Your task to perform on an android device: turn vacation reply on in the gmail app Image 0: 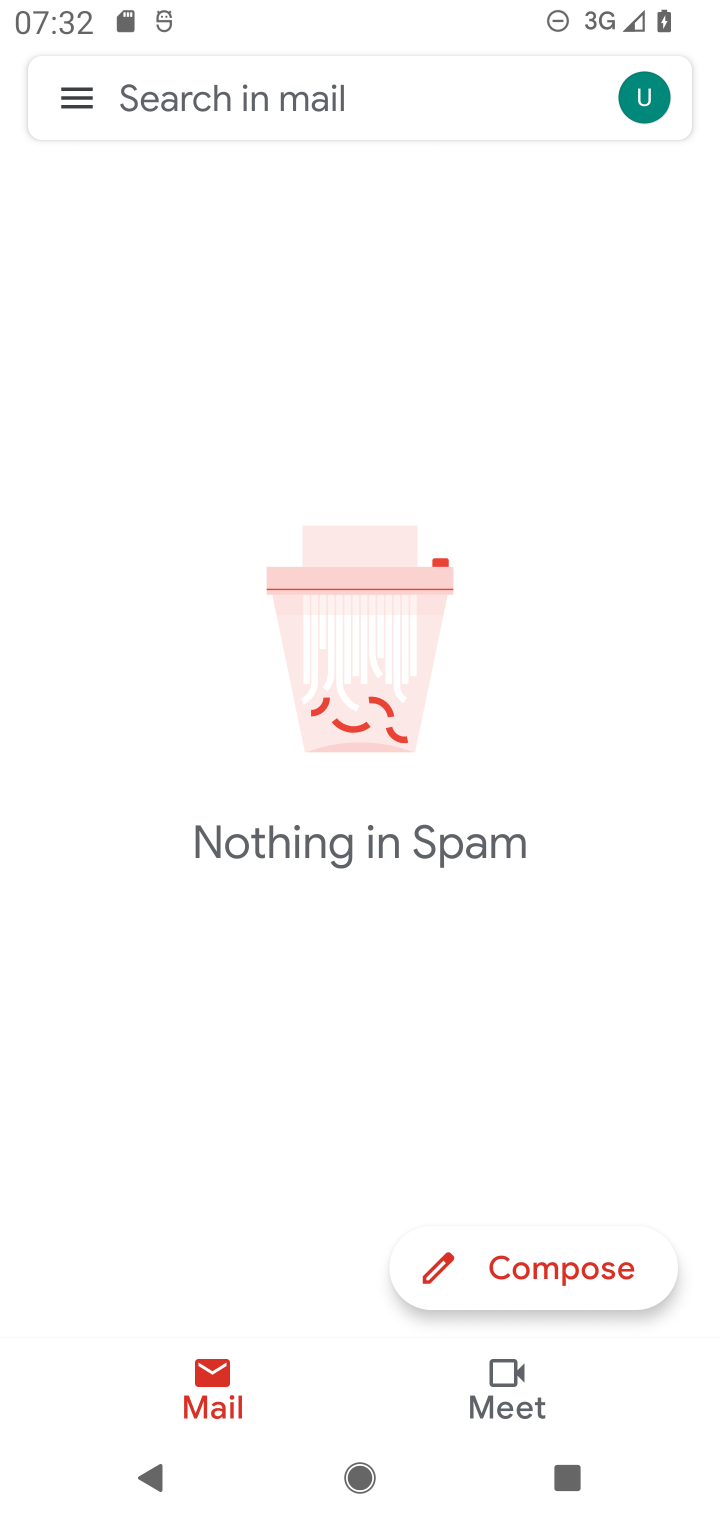
Step 0: press home button
Your task to perform on an android device: turn vacation reply on in the gmail app Image 1: 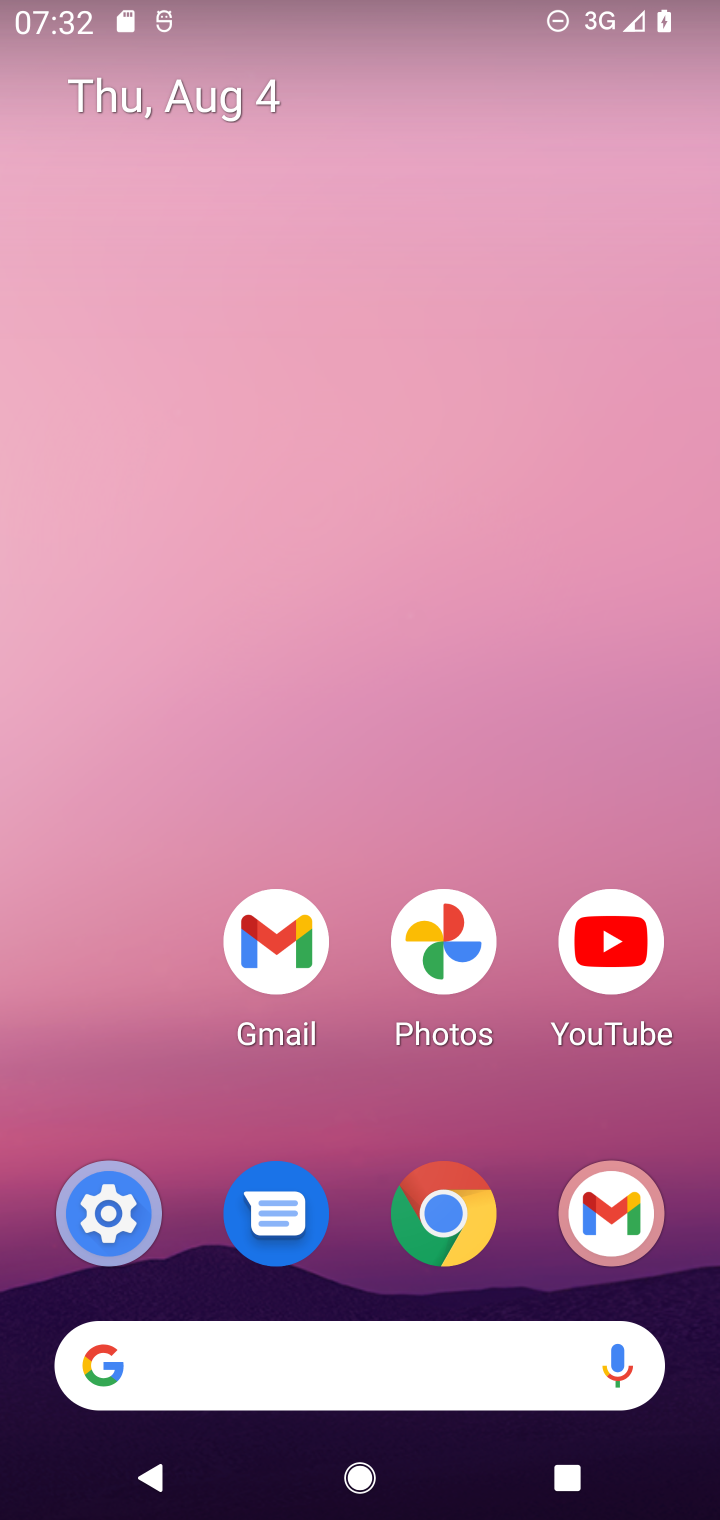
Step 1: drag from (117, 739) to (152, 401)
Your task to perform on an android device: turn vacation reply on in the gmail app Image 2: 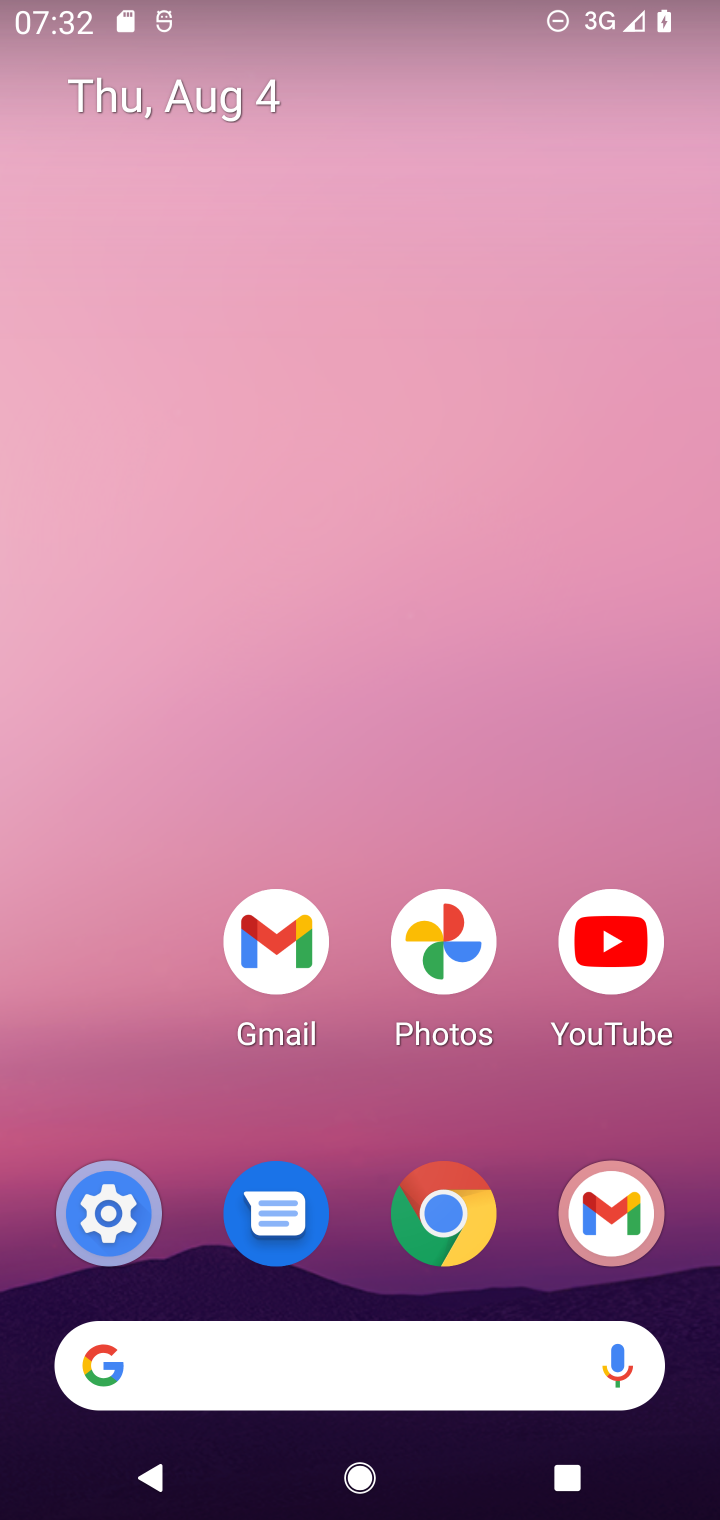
Step 2: drag from (174, 1109) to (201, 275)
Your task to perform on an android device: turn vacation reply on in the gmail app Image 3: 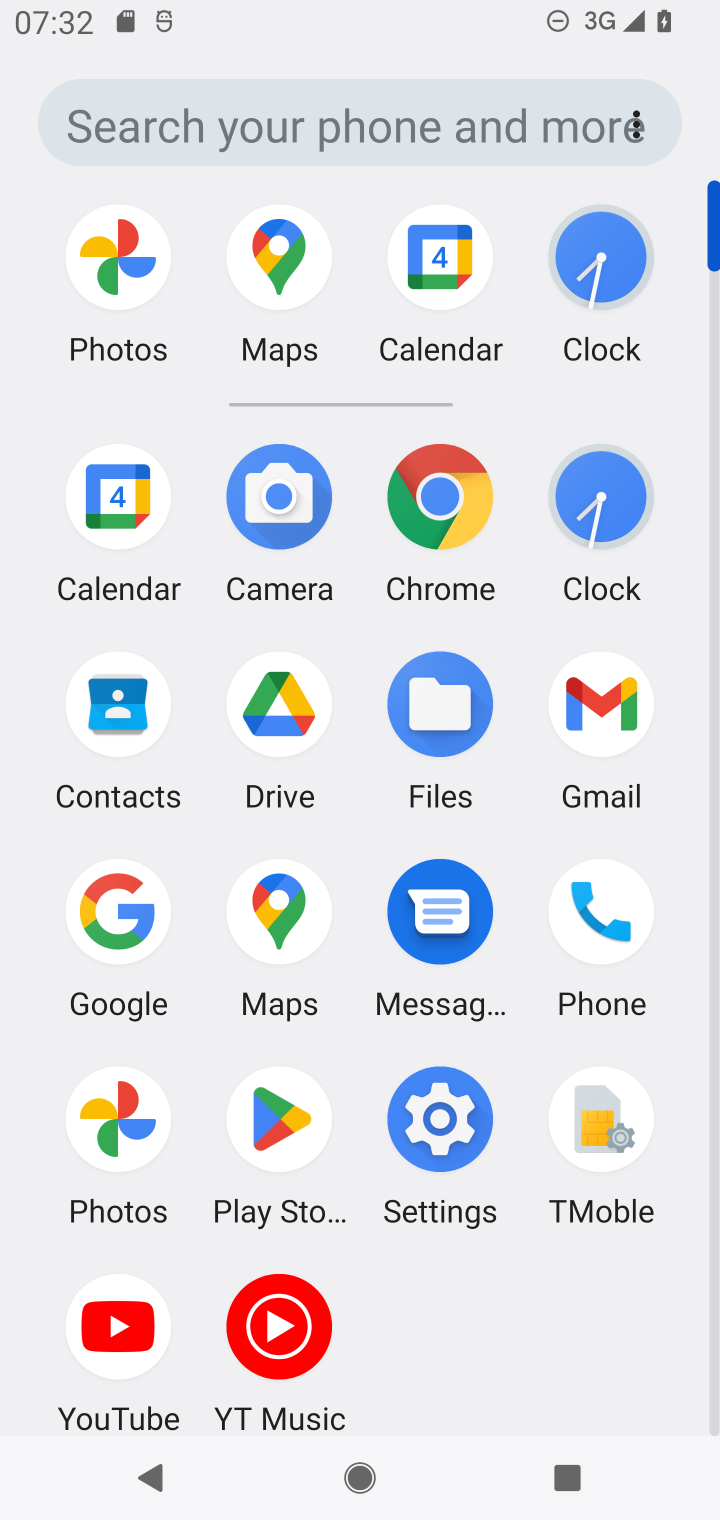
Step 3: click (609, 713)
Your task to perform on an android device: turn vacation reply on in the gmail app Image 4: 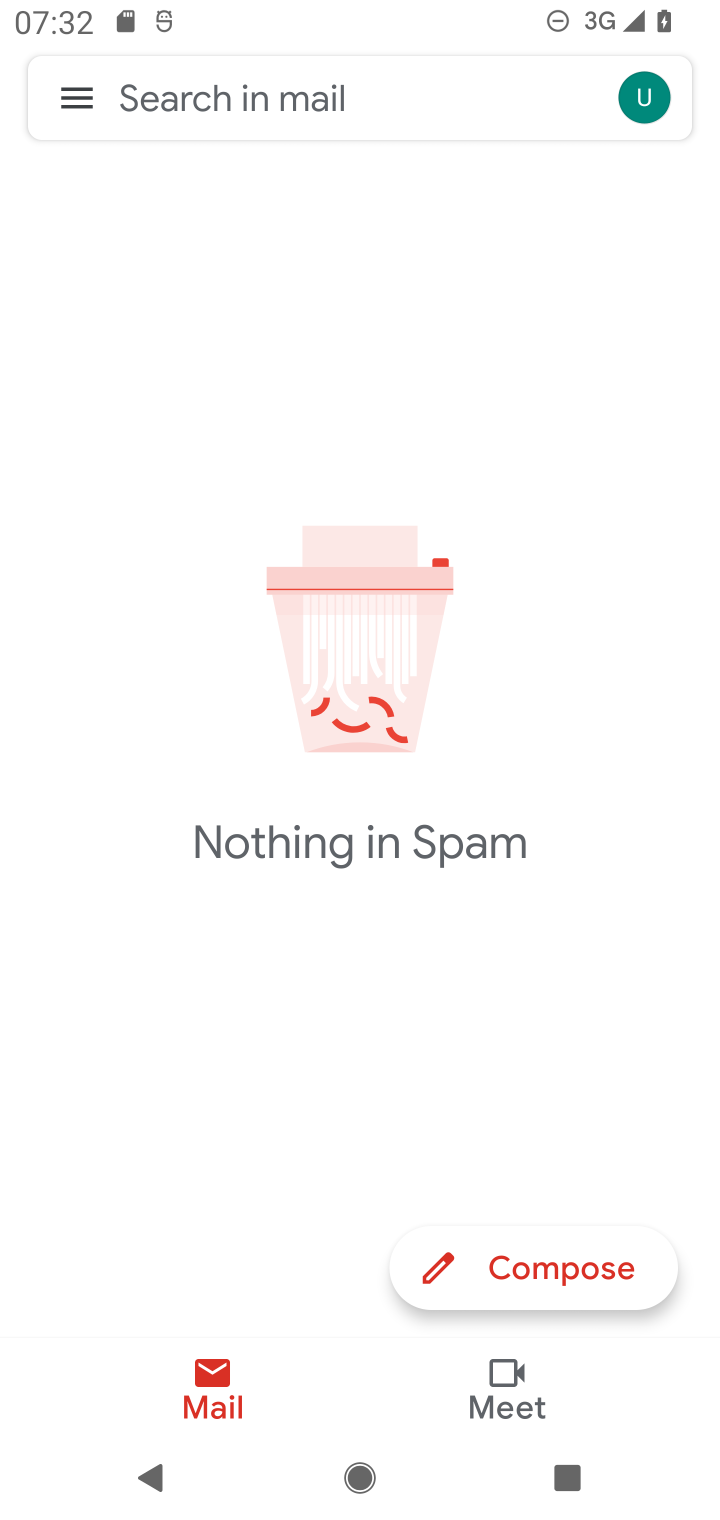
Step 4: click (79, 86)
Your task to perform on an android device: turn vacation reply on in the gmail app Image 5: 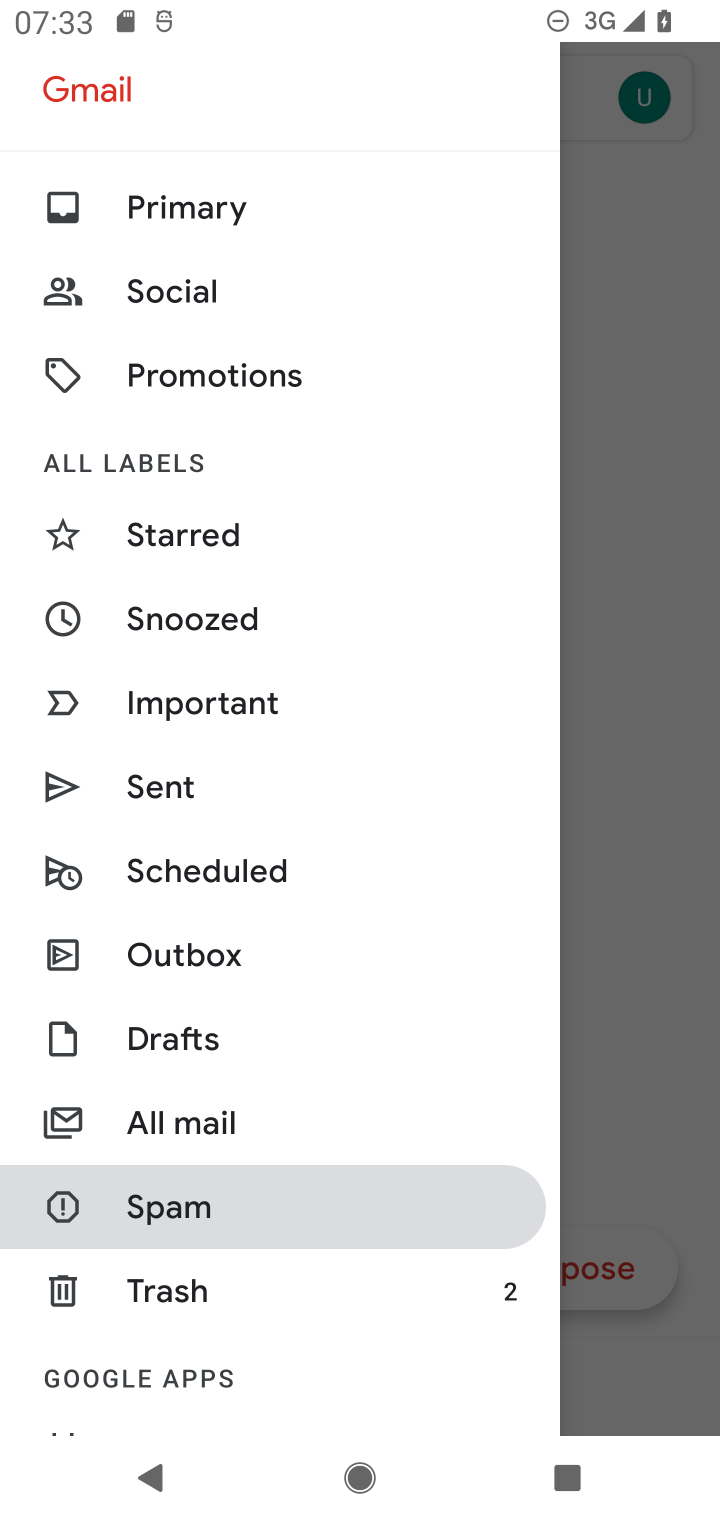
Step 5: drag from (323, 1114) to (336, 753)
Your task to perform on an android device: turn vacation reply on in the gmail app Image 6: 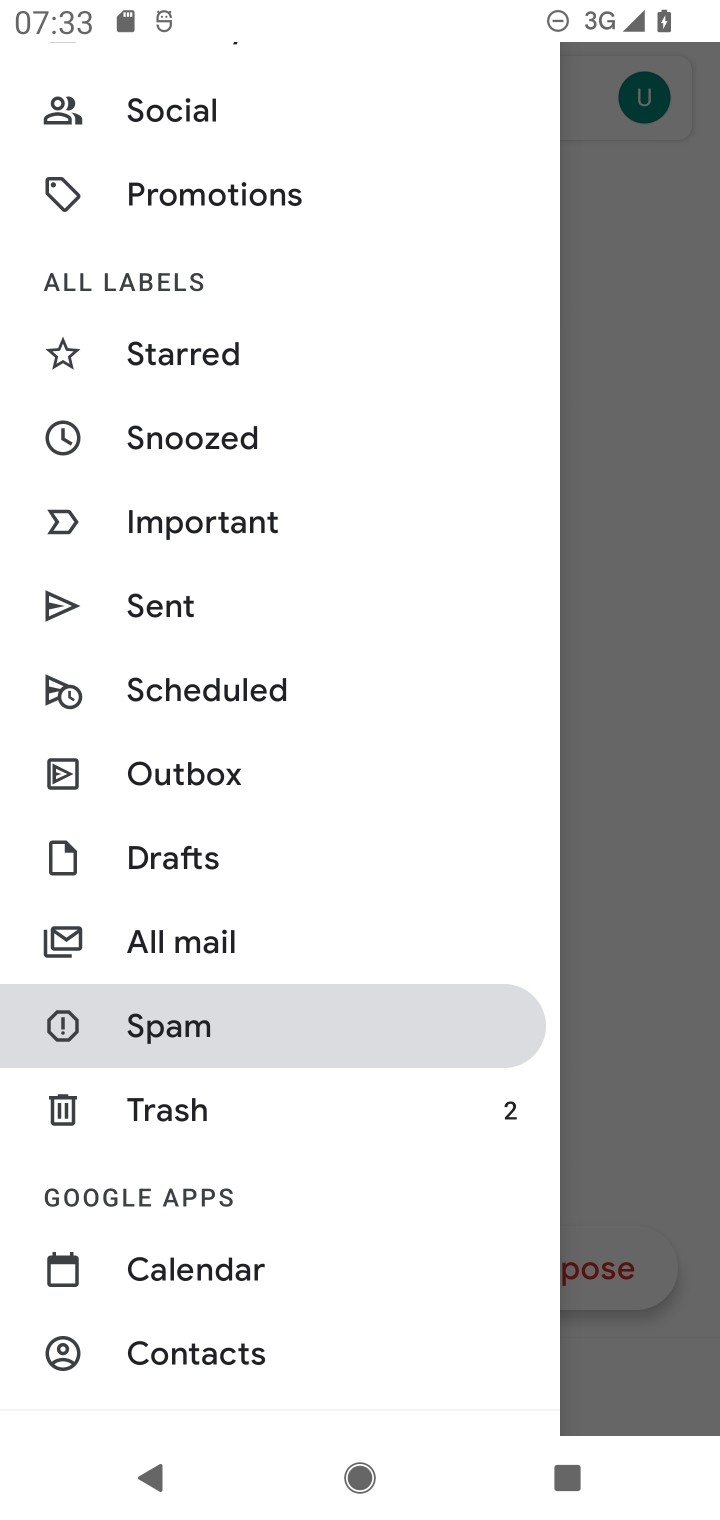
Step 6: drag from (361, 1273) to (379, 855)
Your task to perform on an android device: turn vacation reply on in the gmail app Image 7: 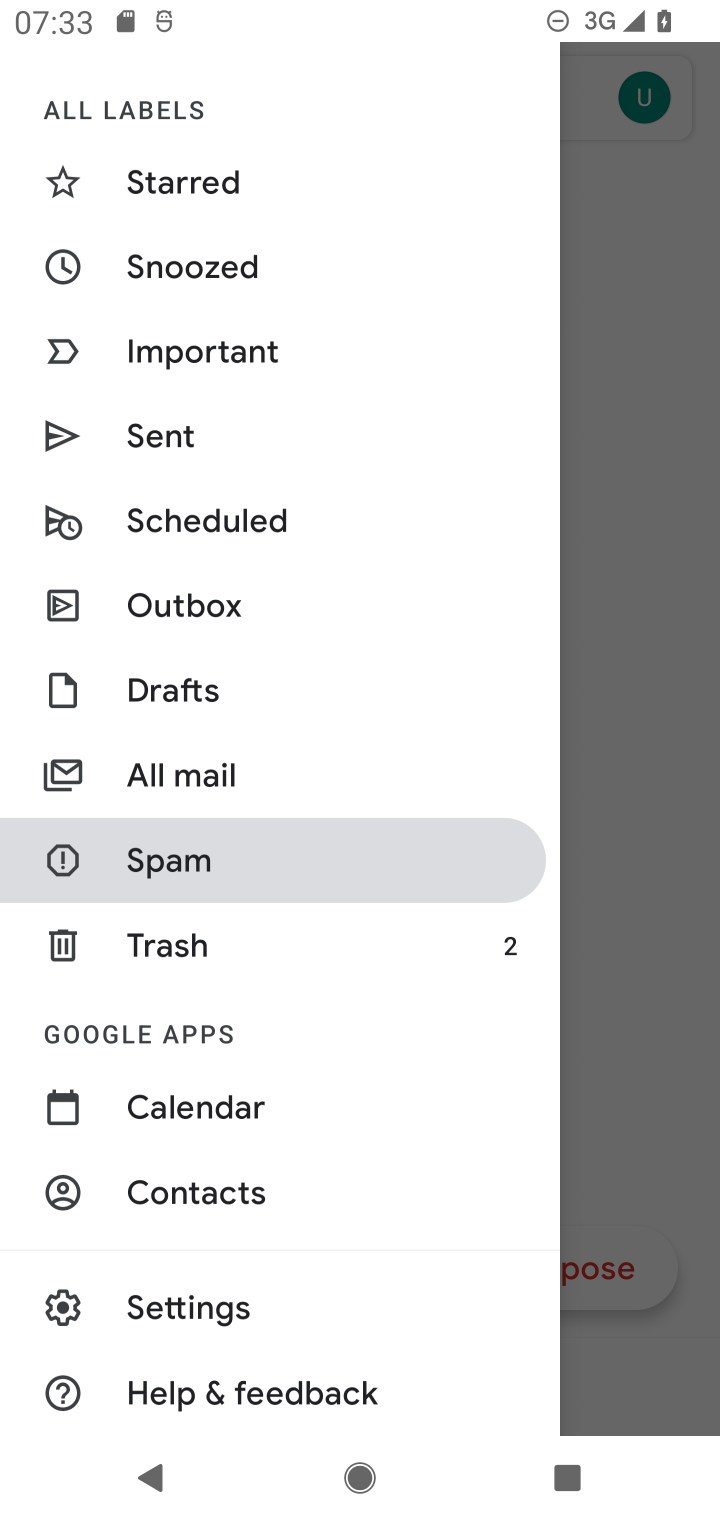
Step 7: click (239, 1296)
Your task to perform on an android device: turn vacation reply on in the gmail app Image 8: 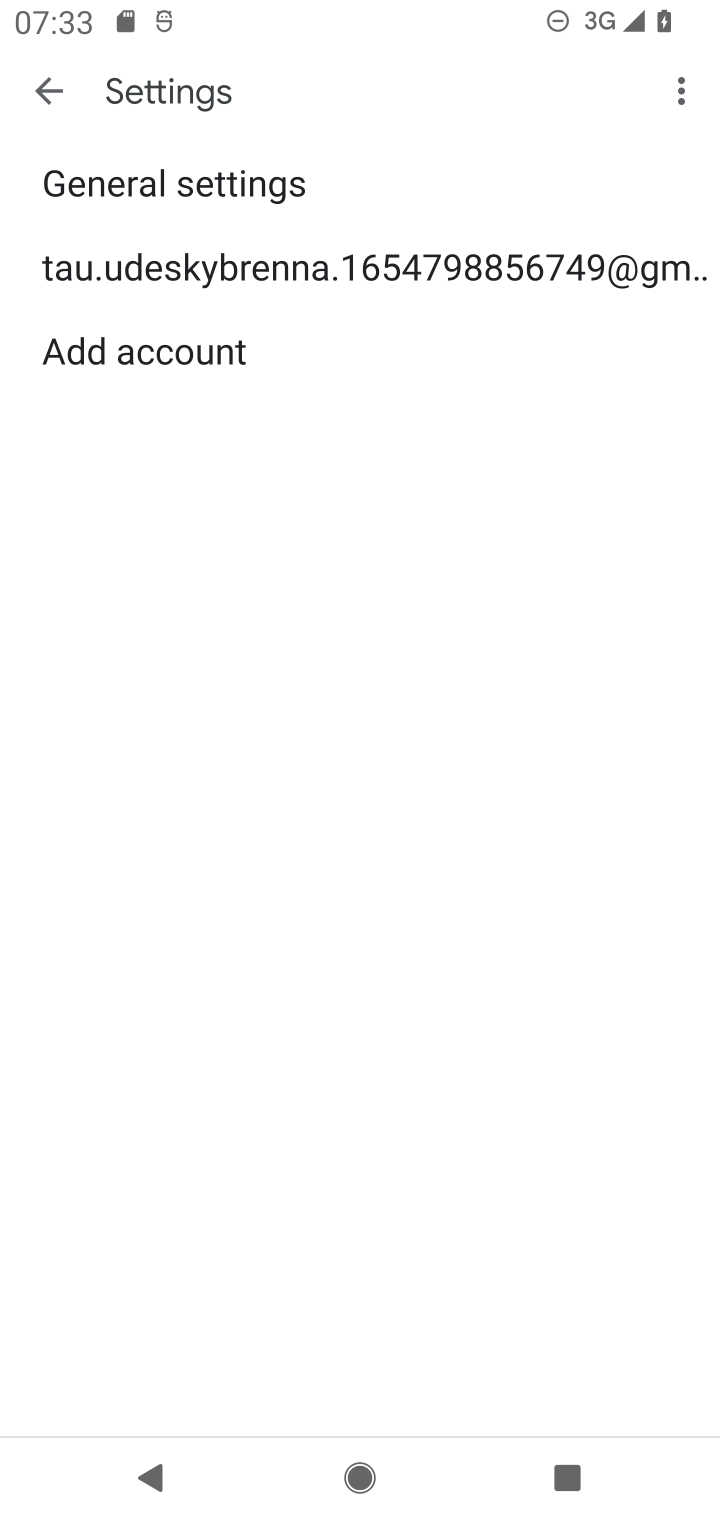
Step 8: click (536, 272)
Your task to perform on an android device: turn vacation reply on in the gmail app Image 9: 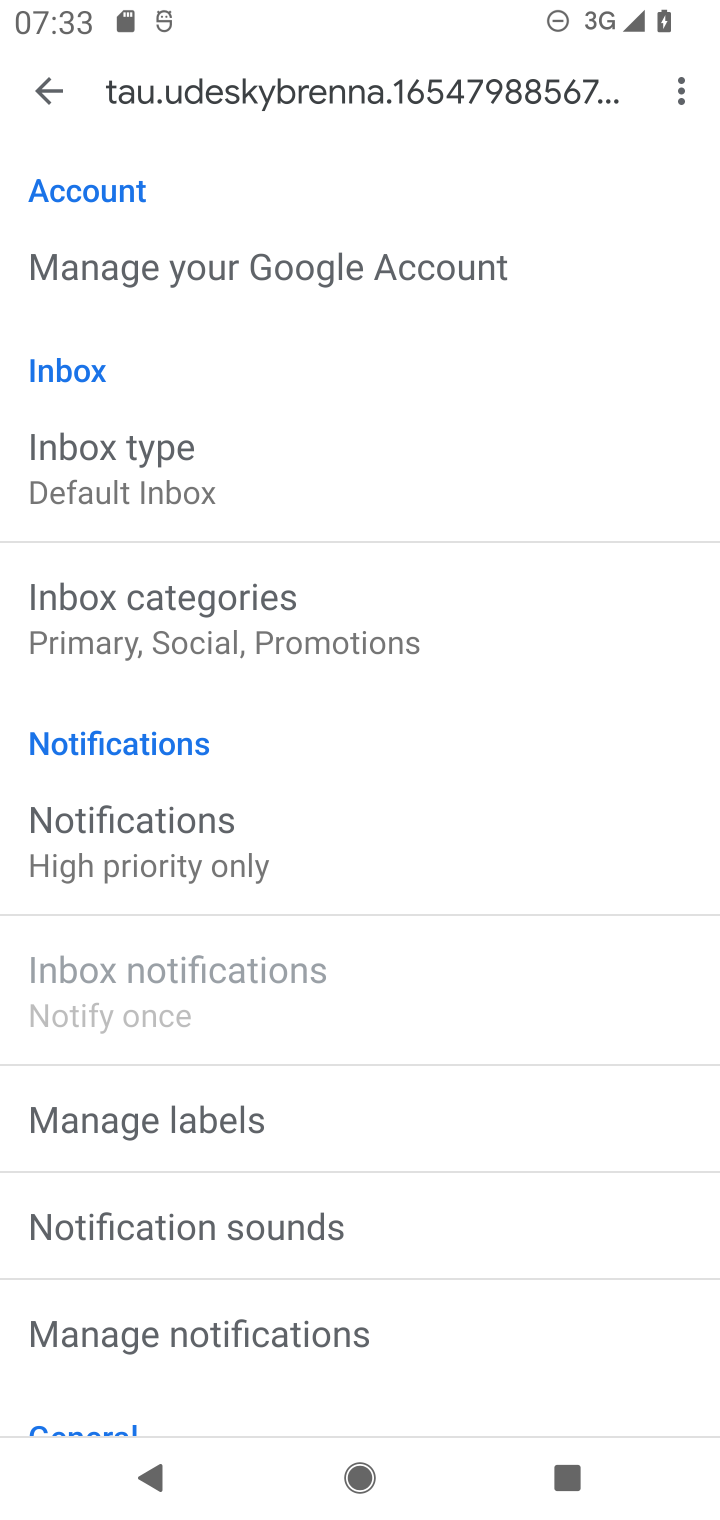
Step 9: drag from (506, 930) to (508, 626)
Your task to perform on an android device: turn vacation reply on in the gmail app Image 10: 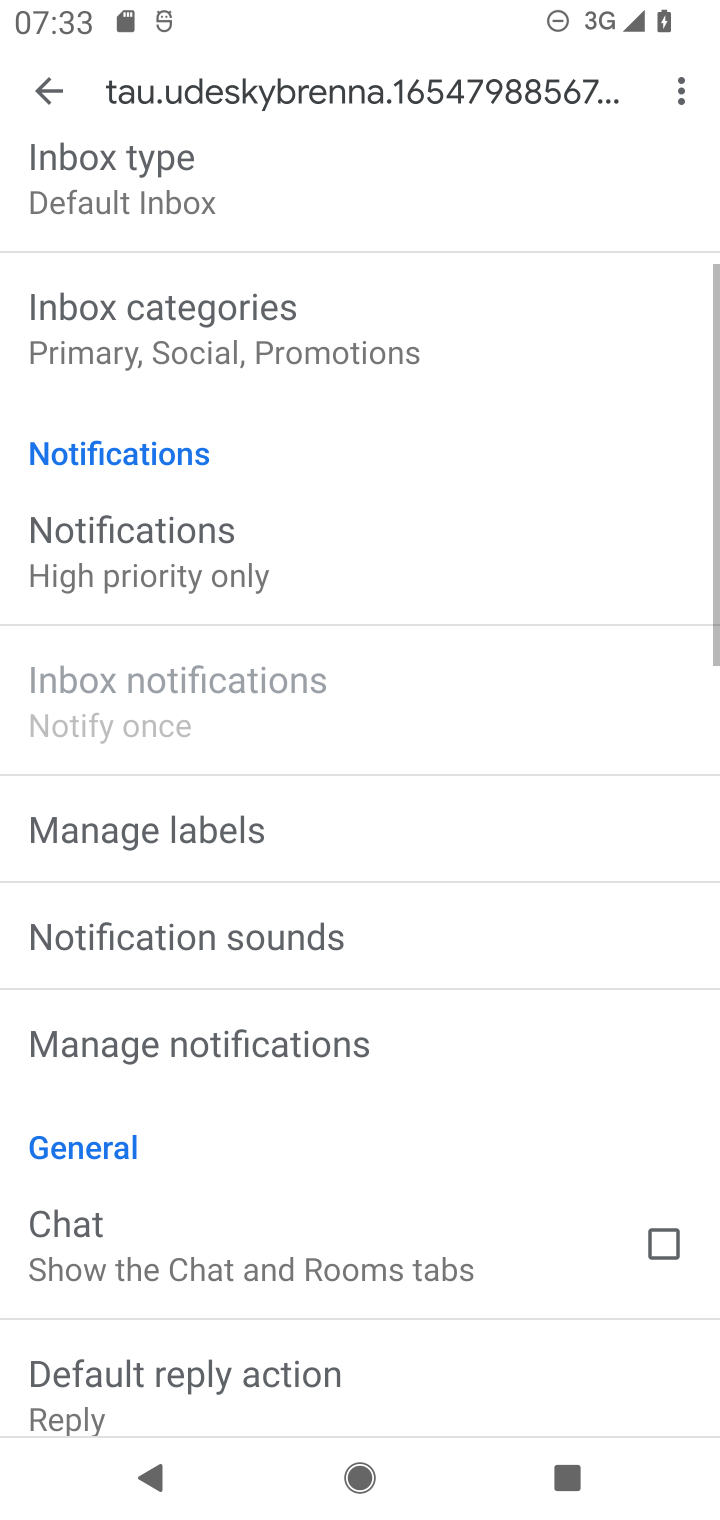
Step 10: drag from (510, 1111) to (536, 576)
Your task to perform on an android device: turn vacation reply on in the gmail app Image 11: 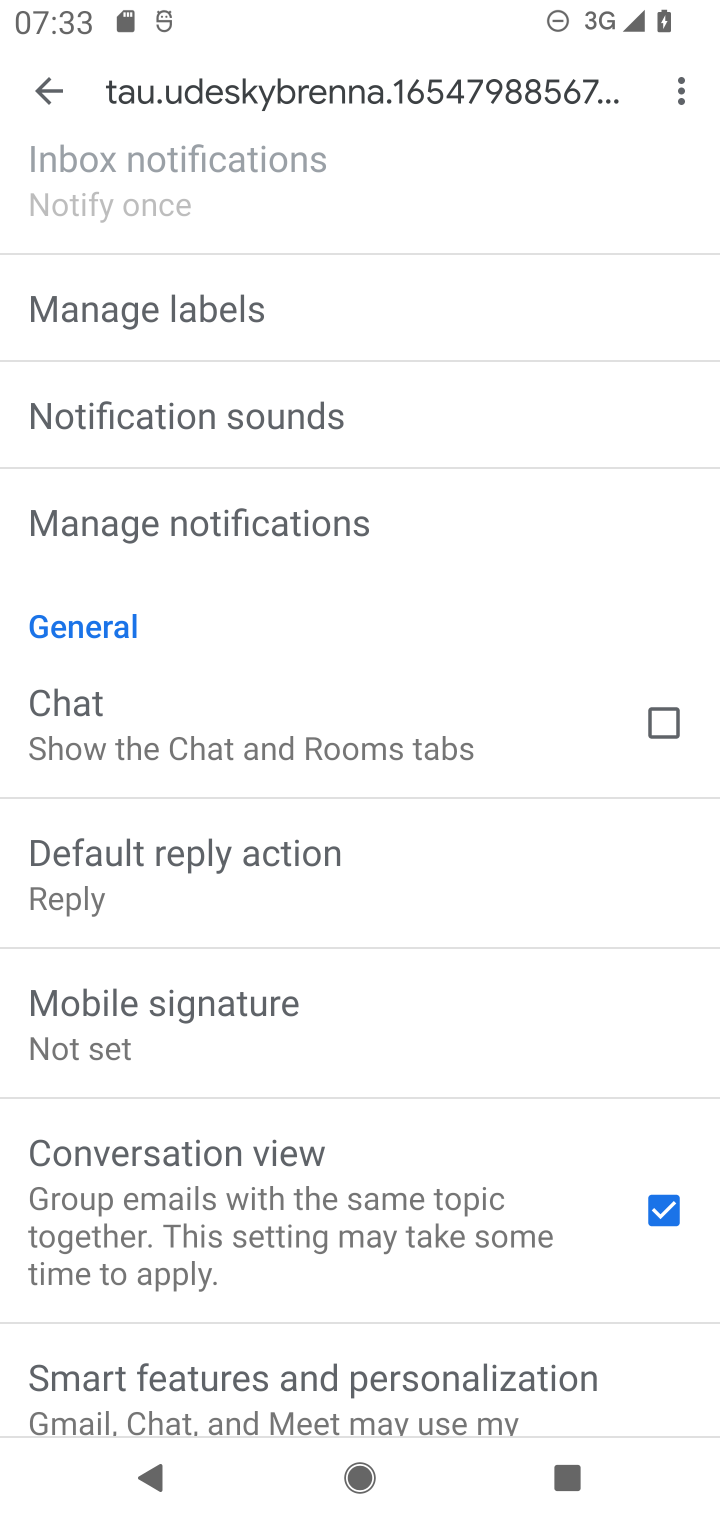
Step 11: drag from (433, 1208) to (449, 737)
Your task to perform on an android device: turn vacation reply on in the gmail app Image 12: 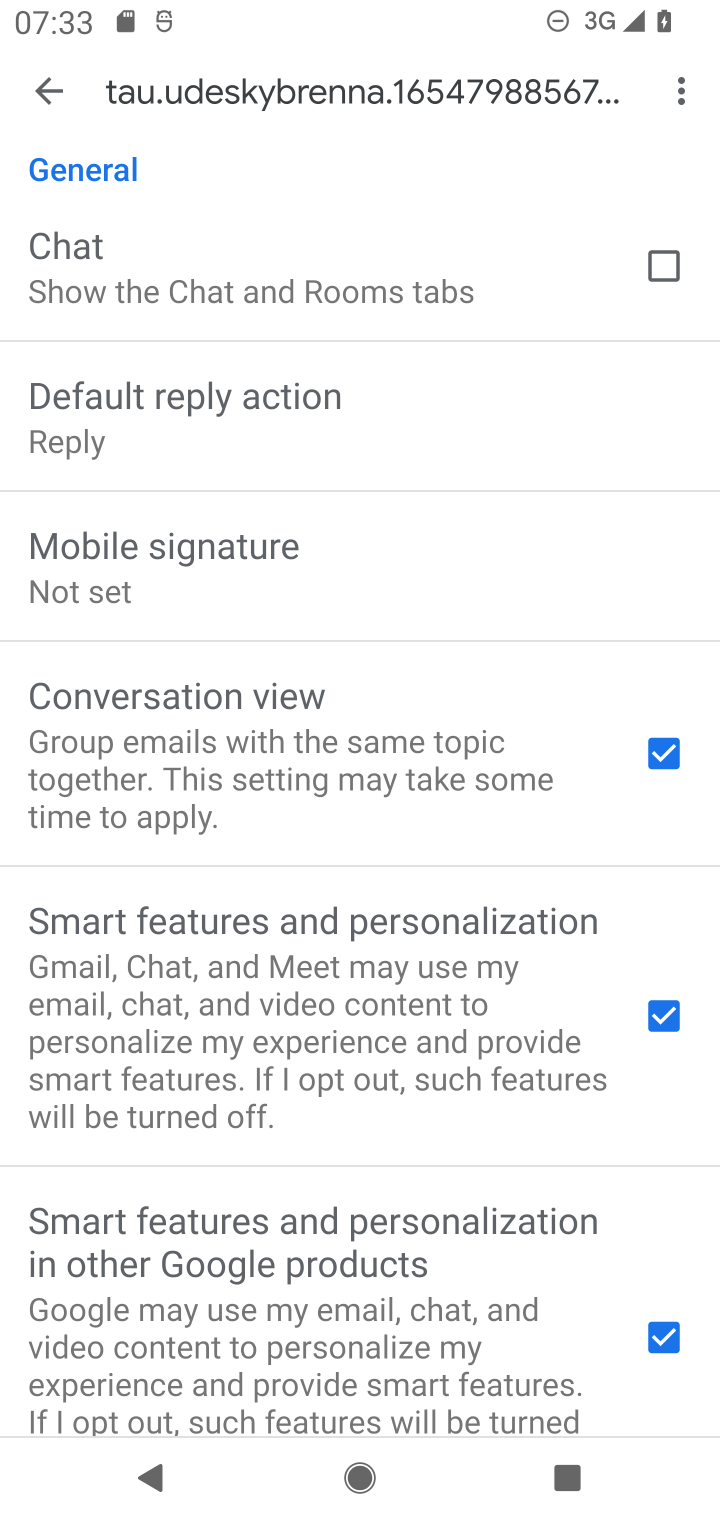
Step 12: drag from (443, 1266) to (439, 815)
Your task to perform on an android device: turn vacation reply on in the gmail app Image 13: 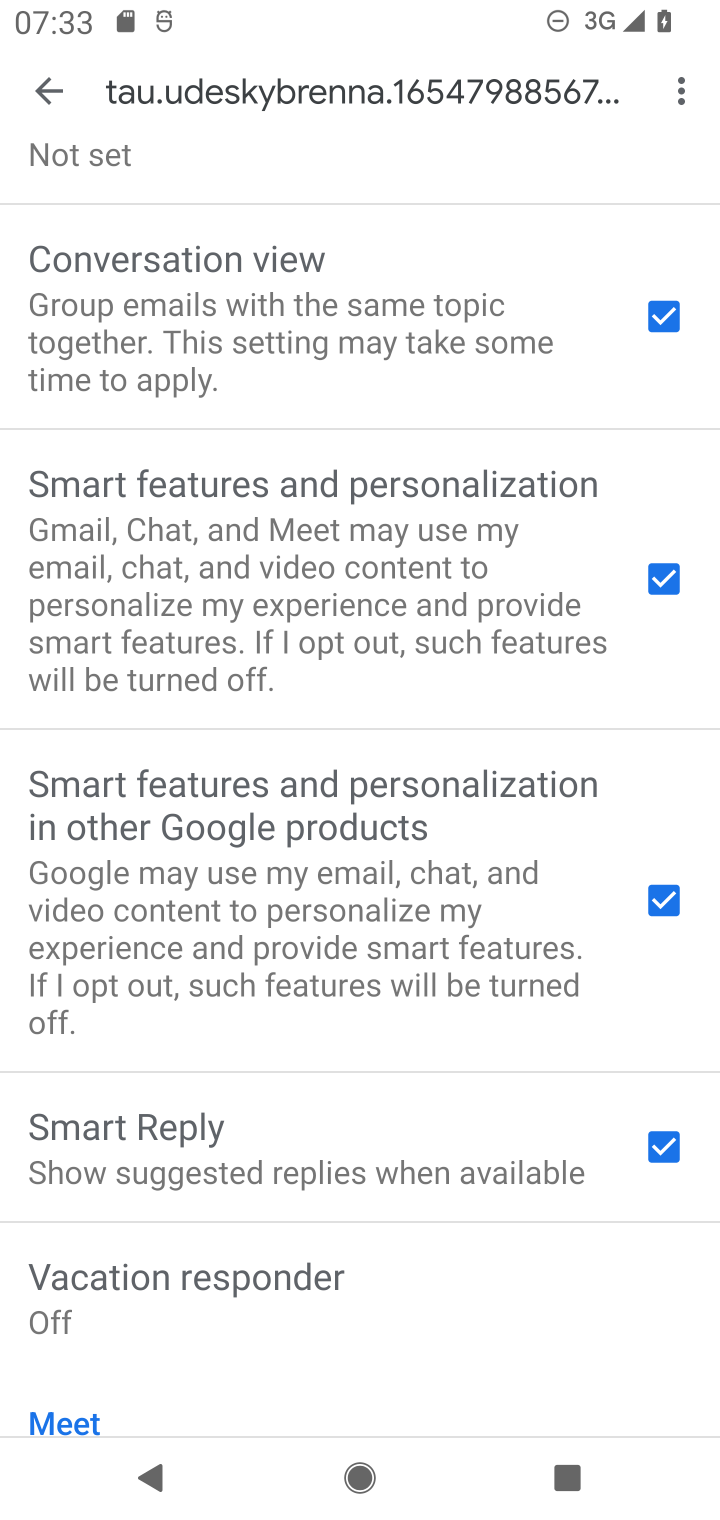
Step 13: click (448, 1268)
Your task to perform on an android device: turn vacation reply on in the gmail app Image 14: 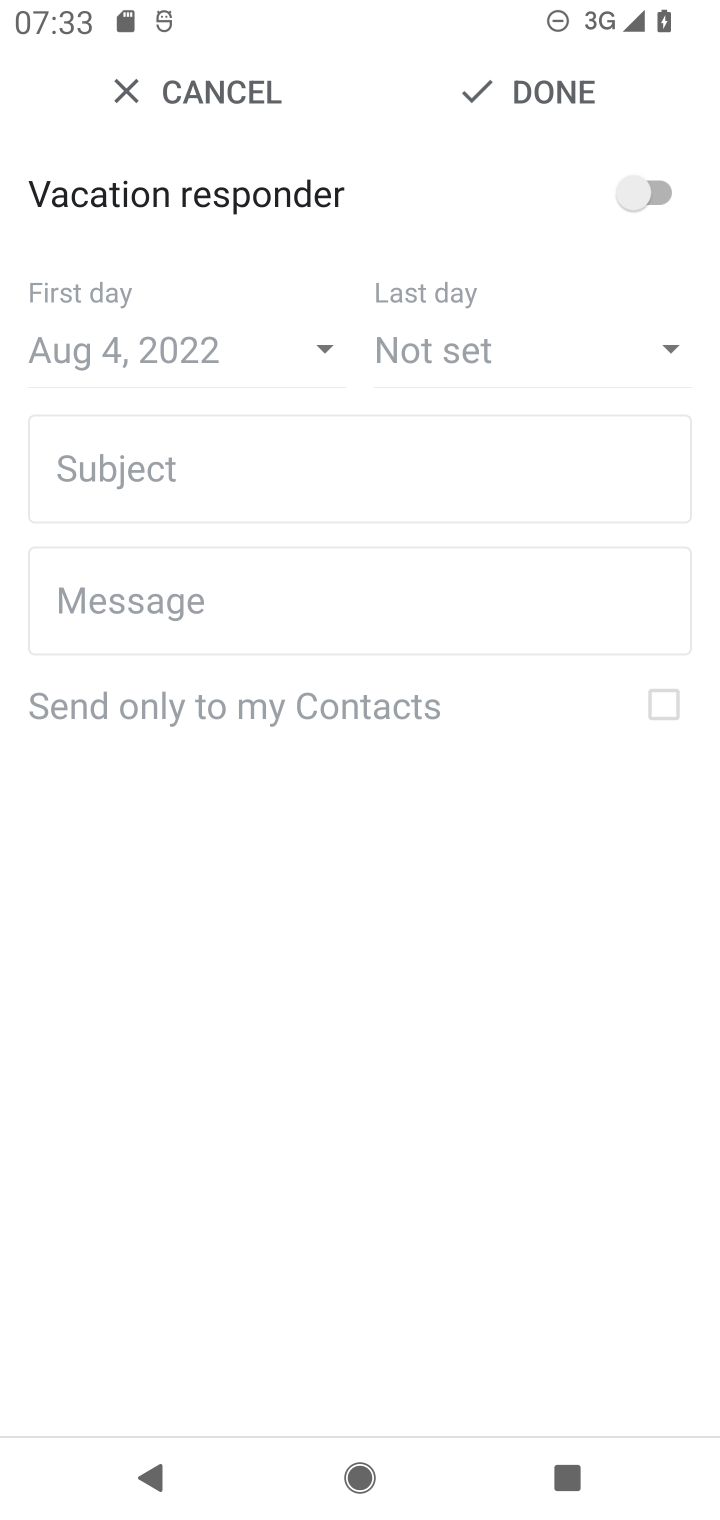
Step 14: click (639, 188)
Your task to perform on an android device: turn vacation reply on in the gmail app Image 15: 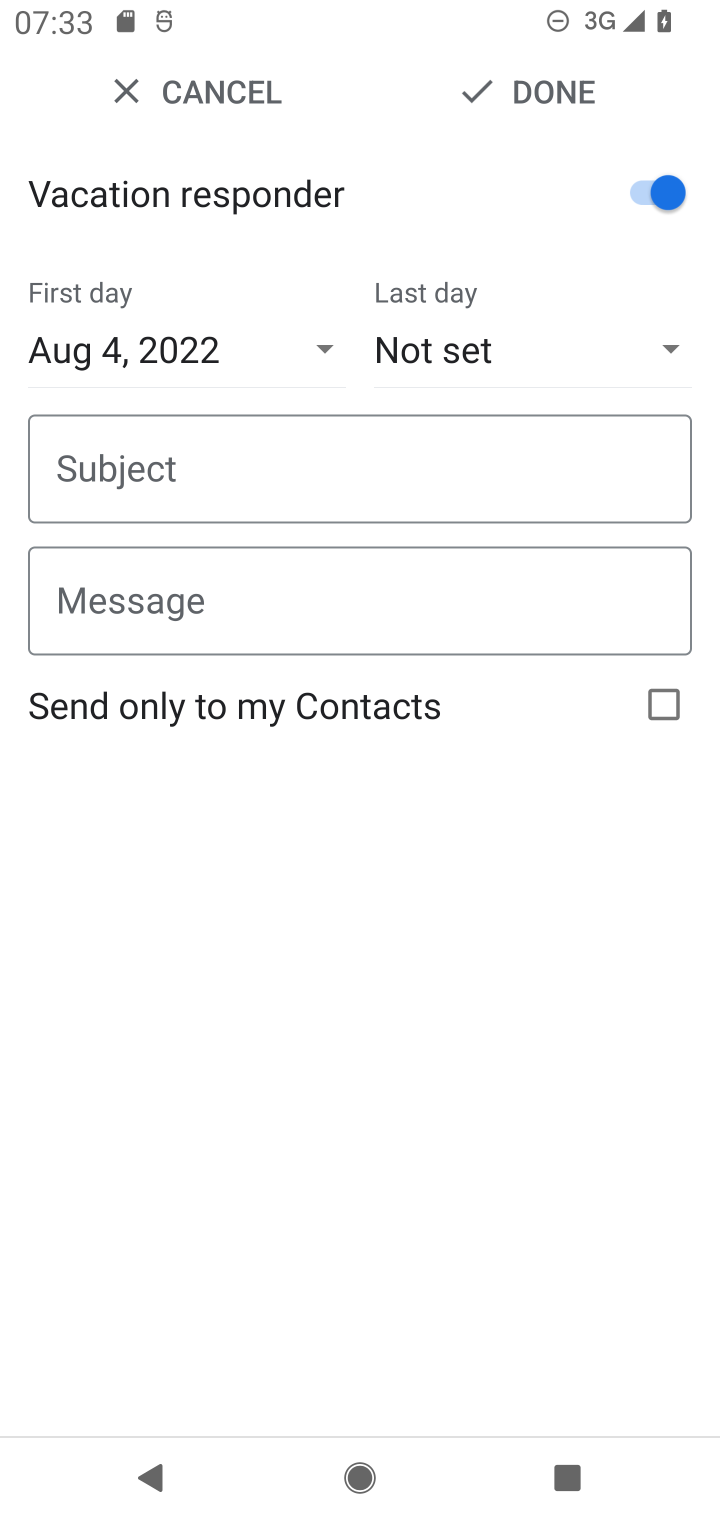
Step 15: task complete